Your task to perform on an android device: check out phone information Image 0: 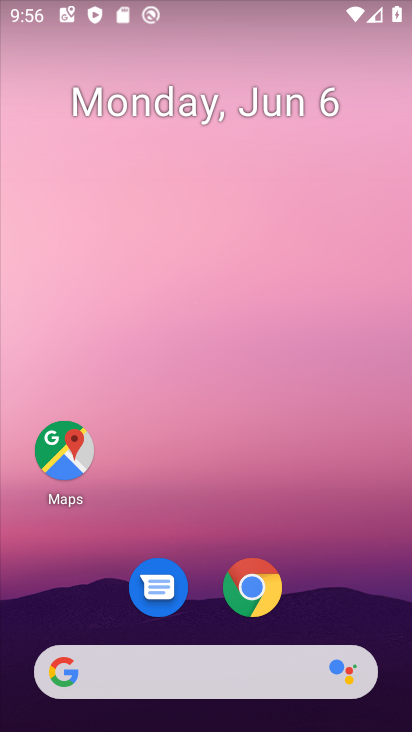
Step 0: drag from (185, 432) to (319, 2)
Your task to perform on an android device: check out phone information Image 1: 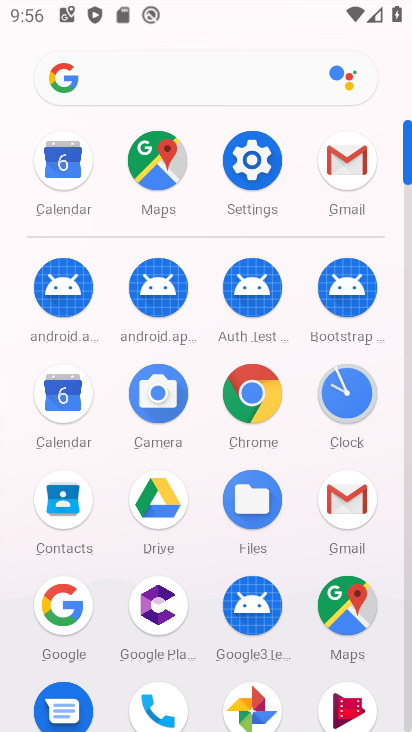
Step 1: click (231, 162)
Your task to perform on an android device: check out phone information Image 2: 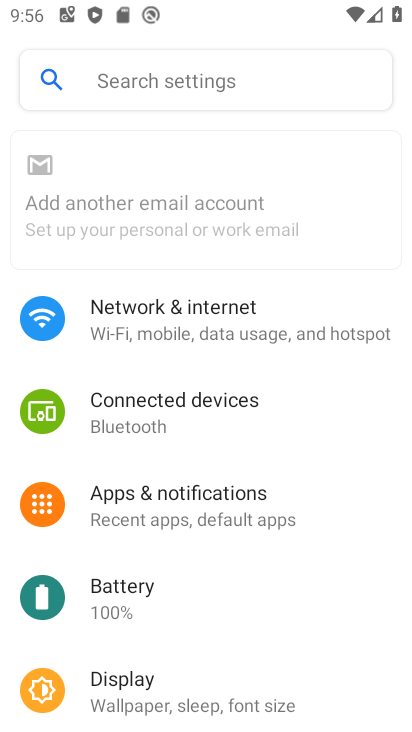
Step 2: drag from (199, 324) to (298, 25)
Your task to perform on an android device: check out phone information Image 3: 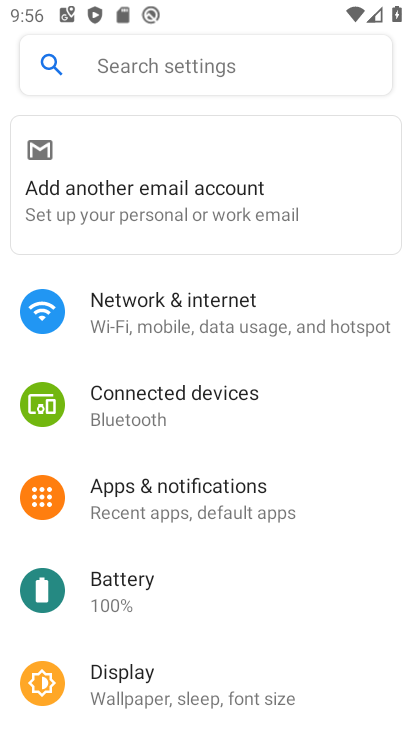
Step 3: drag from (191, 523) to (332, 29)
Your task to perform on an android device: check out phone information Image 4: 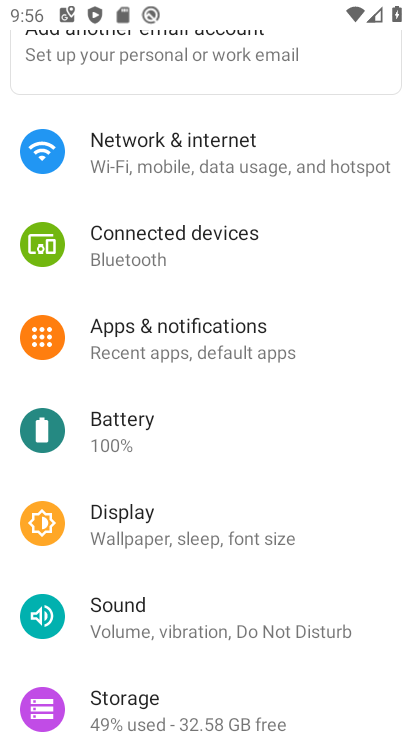
Step 4: drag from (215, 564) to (179, 1)
Your task to perform on an android device: check out phone information Image 5: 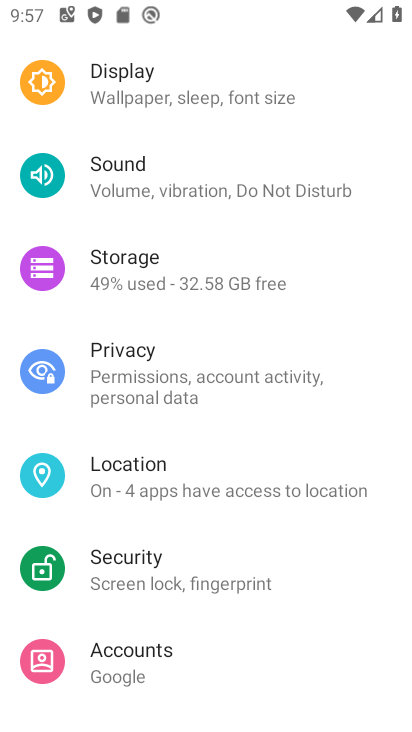
Step 5: drag from (194, 649) to (326, 44)
Your task to perform on an android device: check out phone information Image 6: 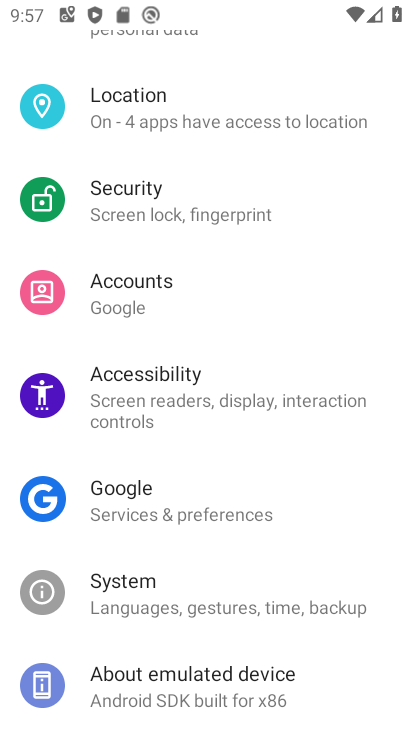
Step 6: click (262, 693)
Your task to perform on an android device: check out phone information Image 7: 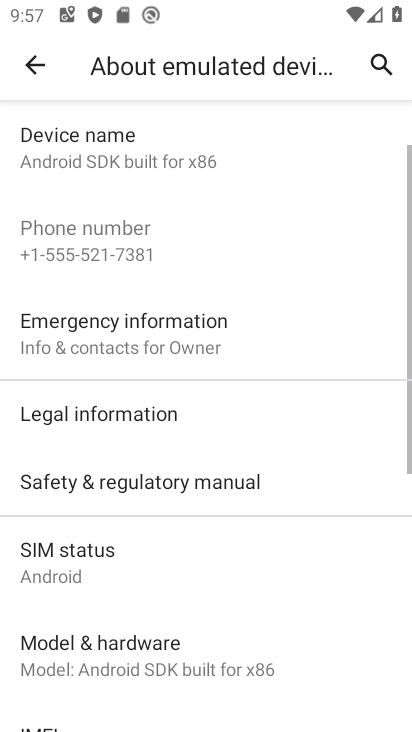
Step 7: task complete